Your task to perform on an android device: What's on the menu at McDonalds? Image 0: 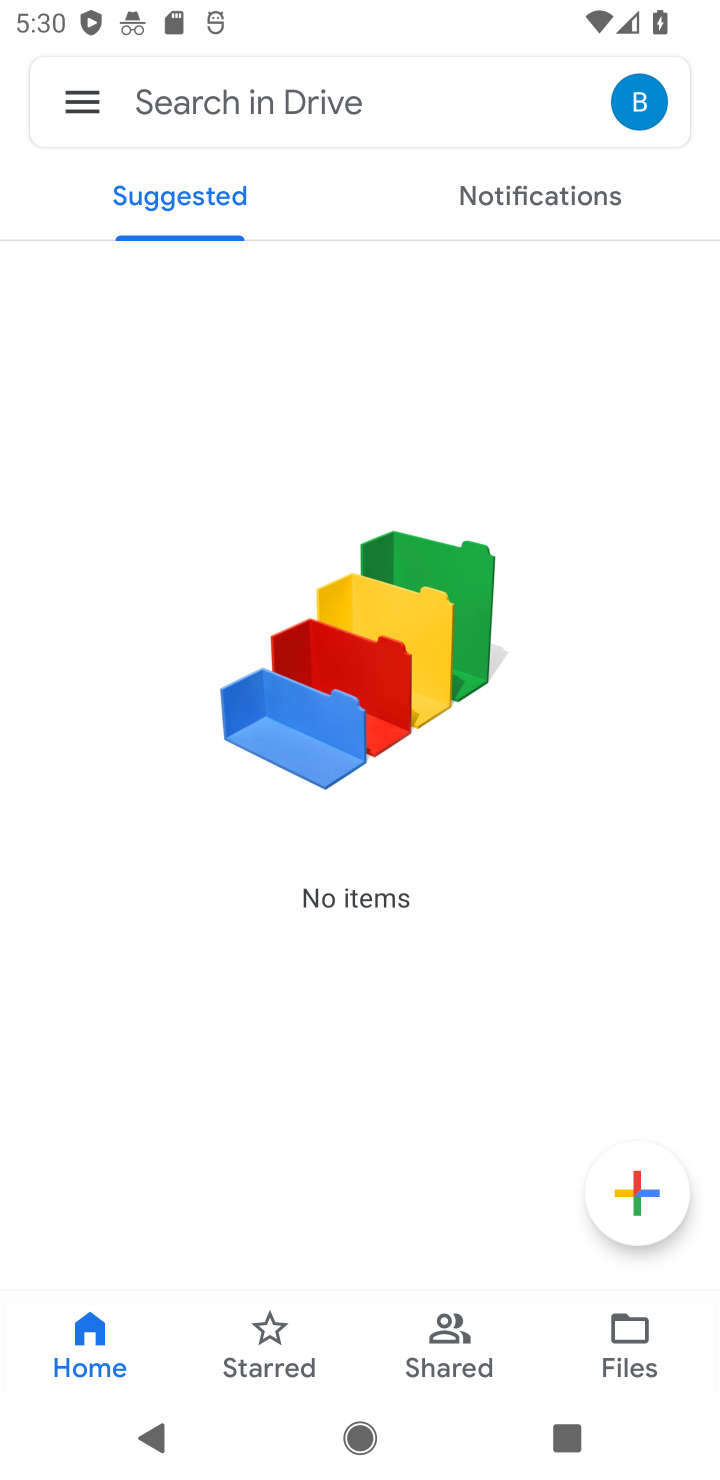
Step 0: press home button
Your task to perform on an android device: What's on the menu at McDonalds? Image 1: 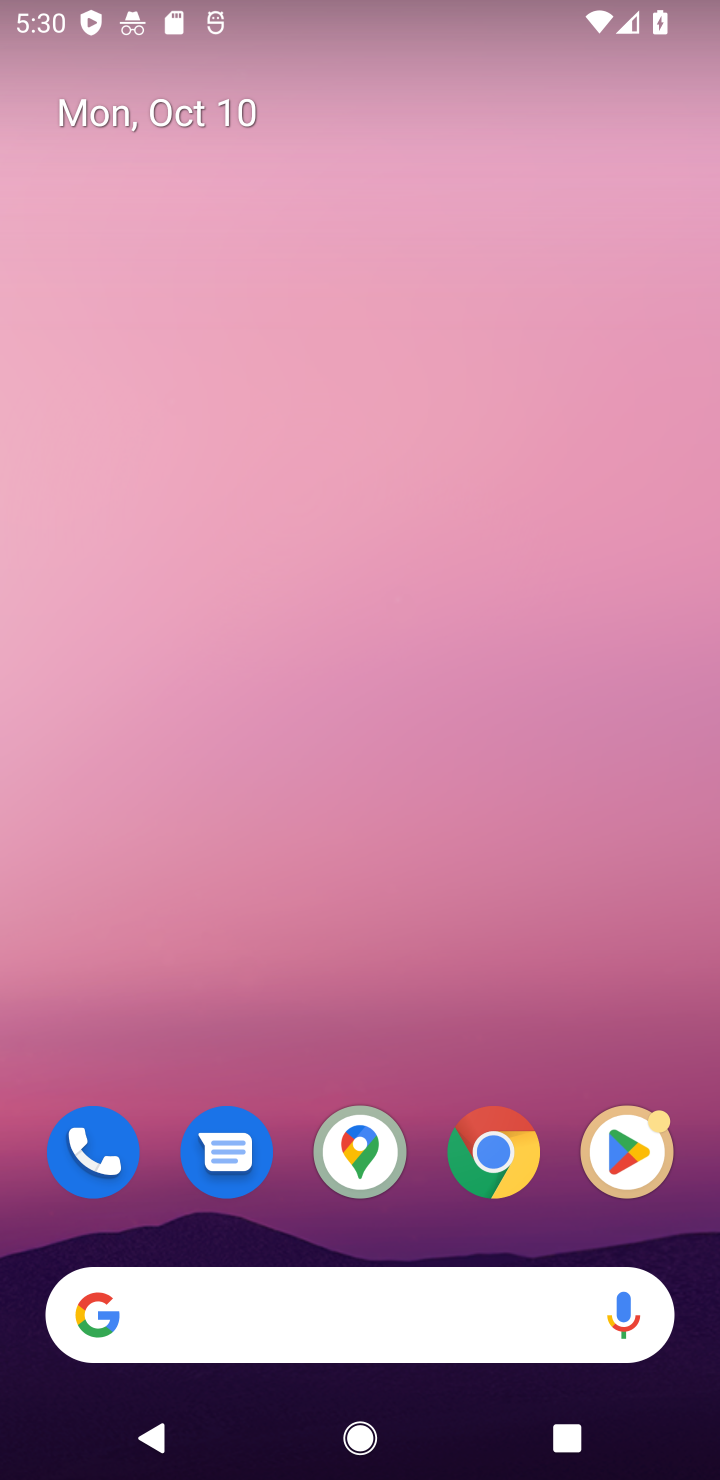
Step 1: click (490, 1150)
Your task to perform on an android device: What's on the menu at McDonalds? Image 2: 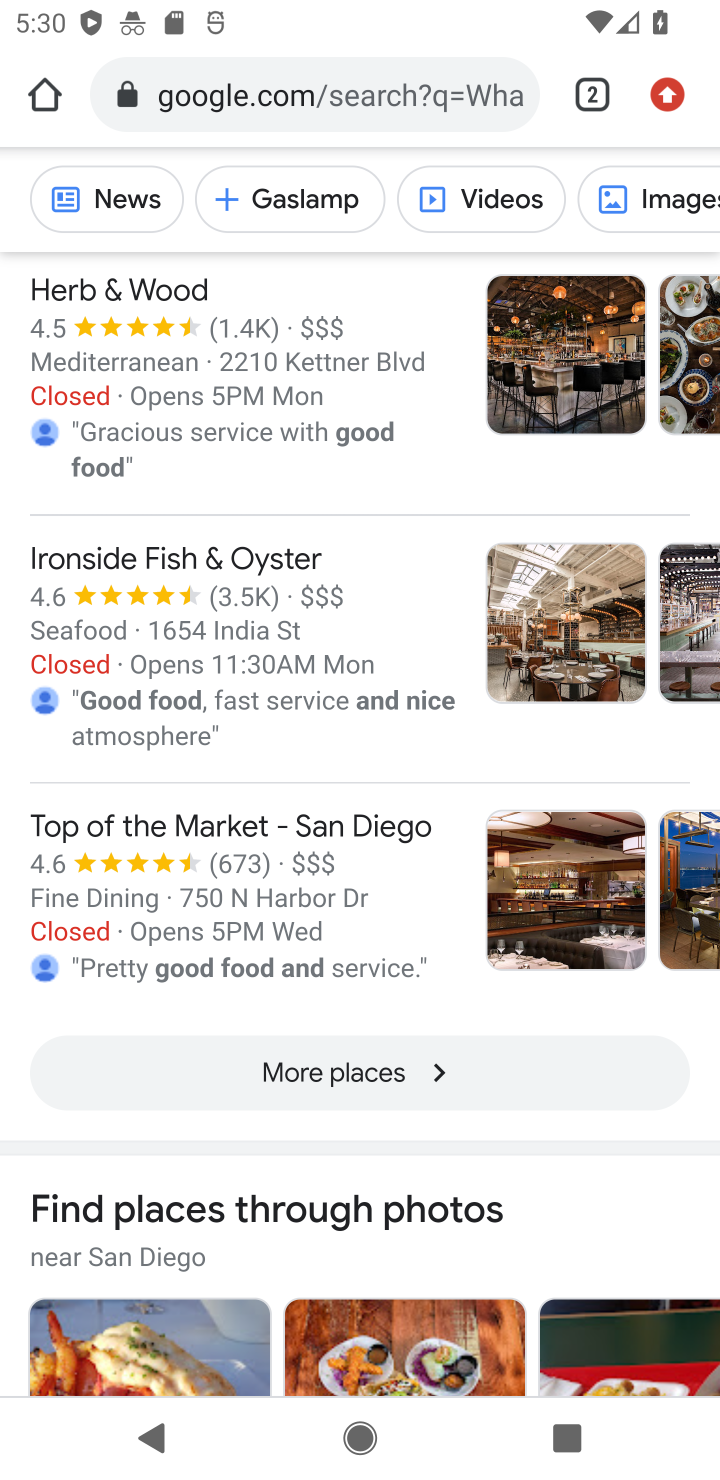
Step 2: click (369, 99)
Your task to perform on an android device: What's on the menu at McDonalds? Image 3: 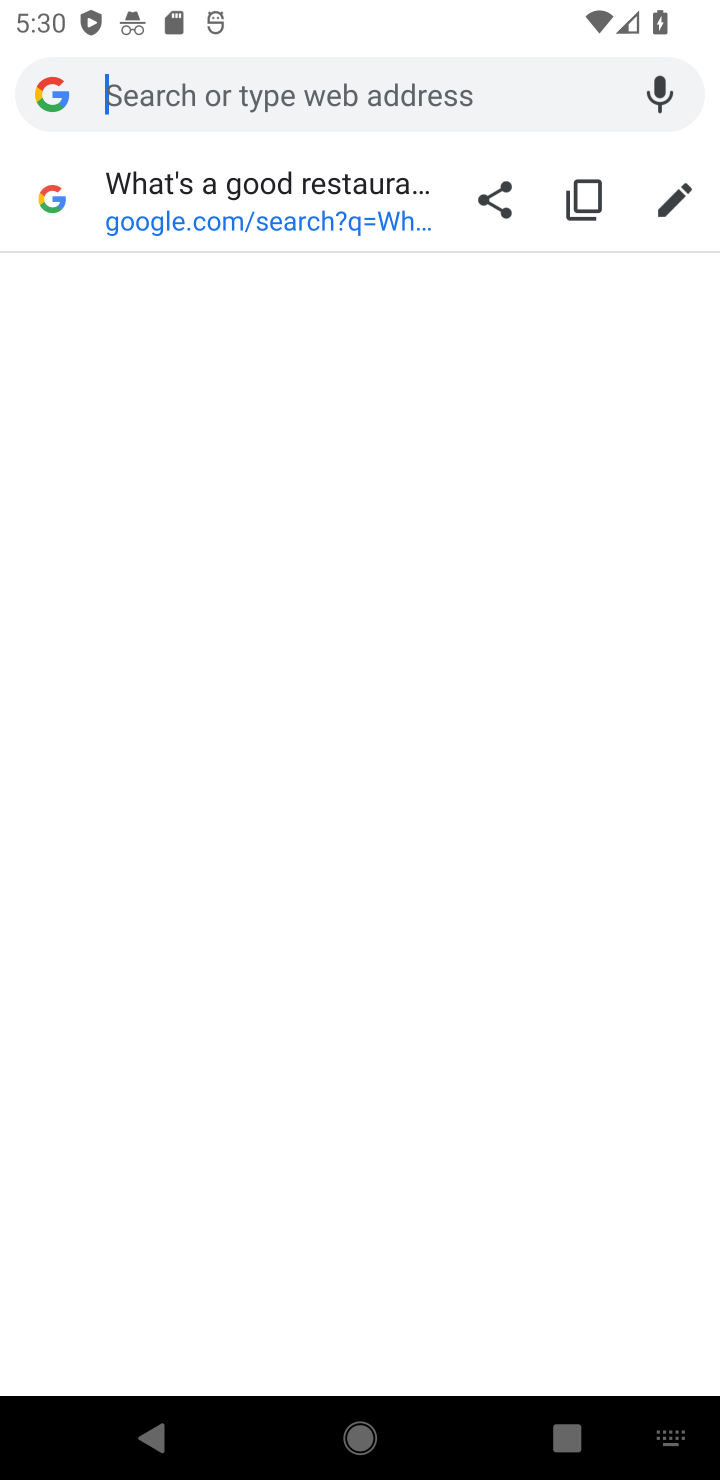
Step 3: type "What's on the menu at McDonalds?"
Your task to perform on an android device: What's on the menu at McDonalds? Image 4: 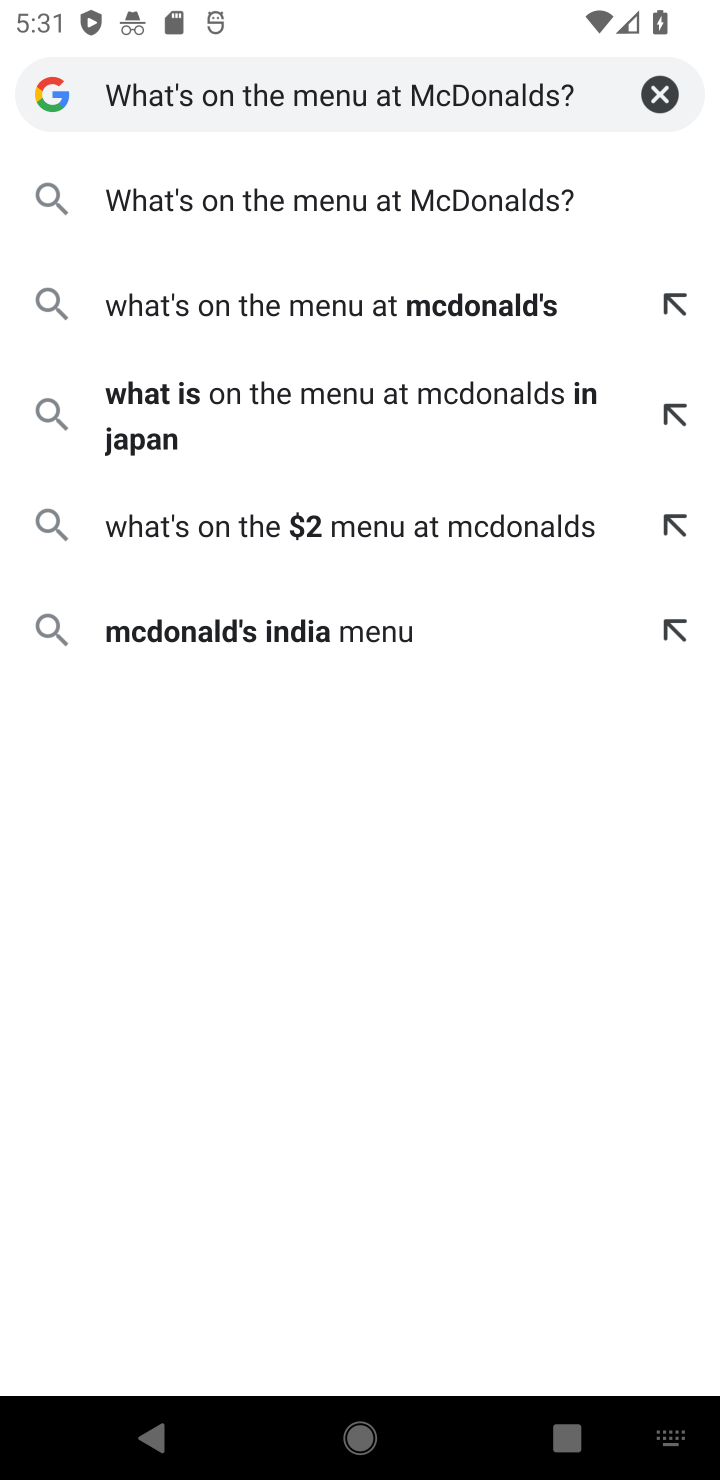
Step 4: click (484, 210)
Your task to perform on an android device: What's on the menu at McDonalds? Image 5: 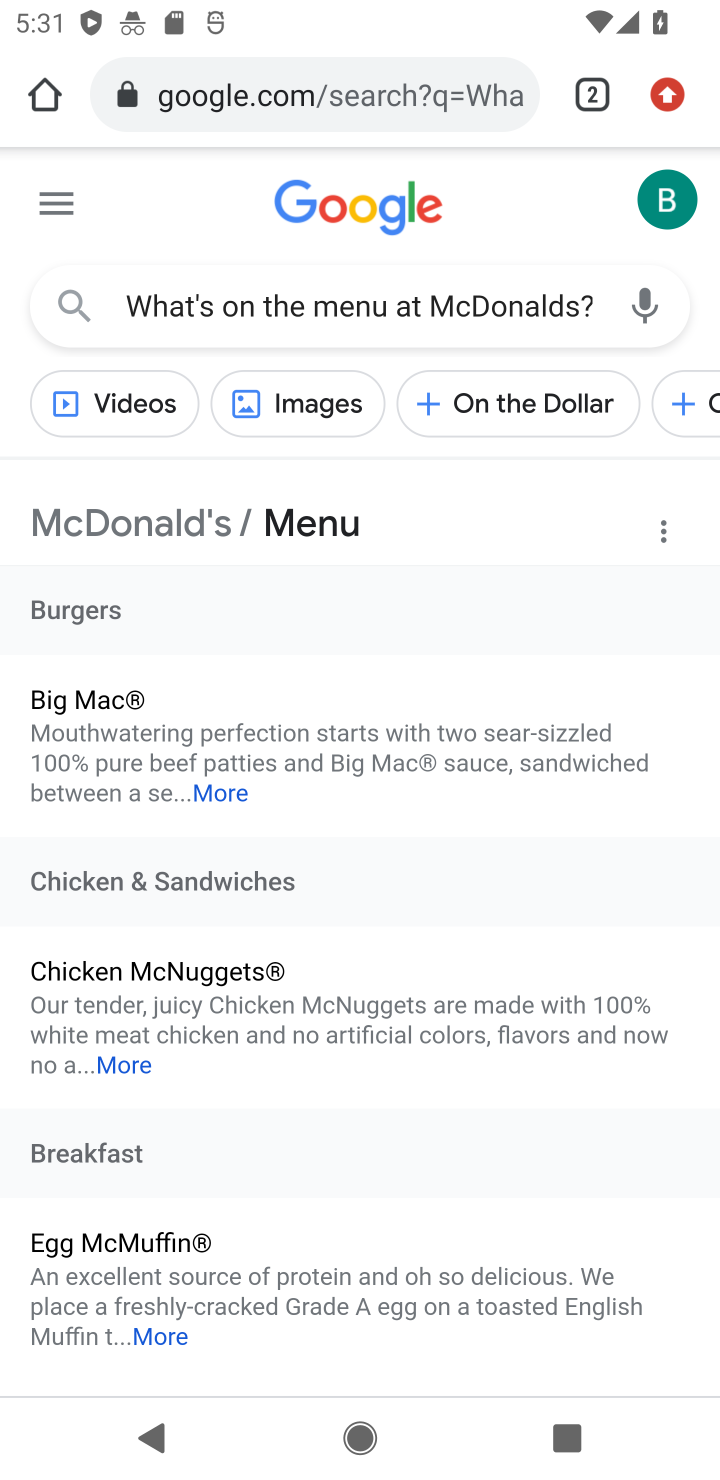
Step 5: task complete